Your task to perform on an android device: turn off location Image 0: 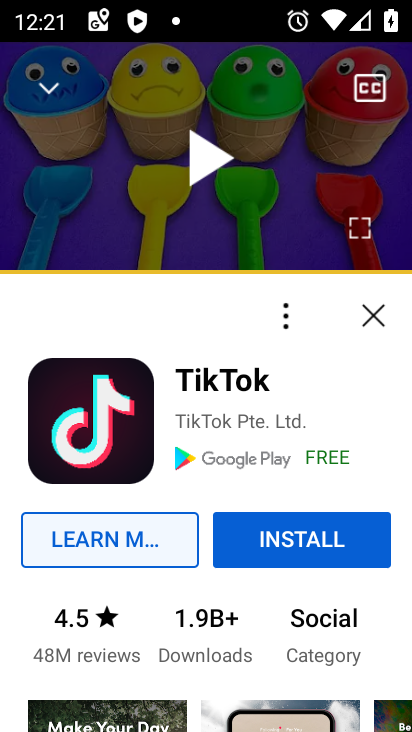
Step 0: press home button
Your task to perform on an android device: turn off location Image 1: 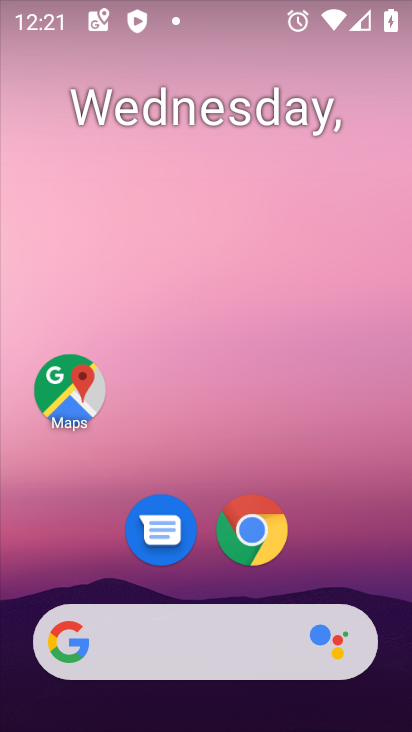
Step 1: drag from (230, 526) to (350, 184)
Your task to perform on an android device: turn off location Image 2: 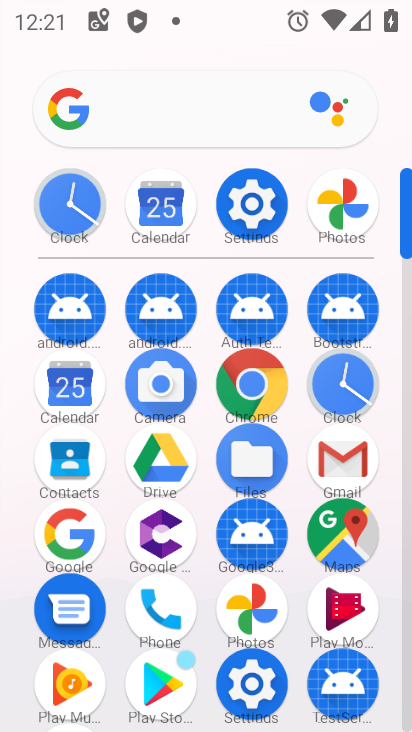
Step 2: click (252, 198)
Your task to perform on an android device: turn off location Image 3: 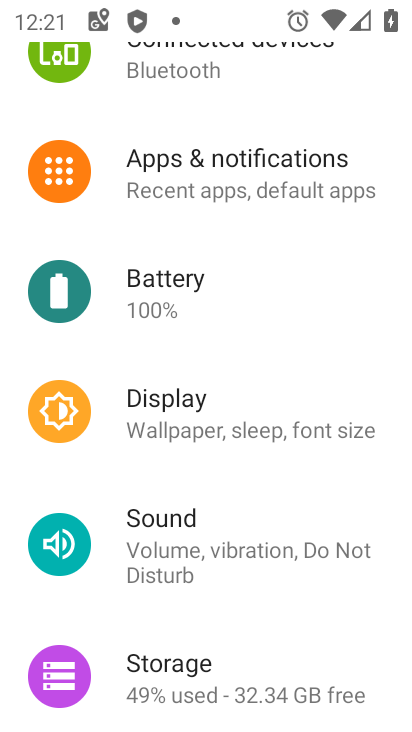
Step 3: drag from (211, 617) to (275, 171)
Your task to perform on an android device: turn off location Image 4: 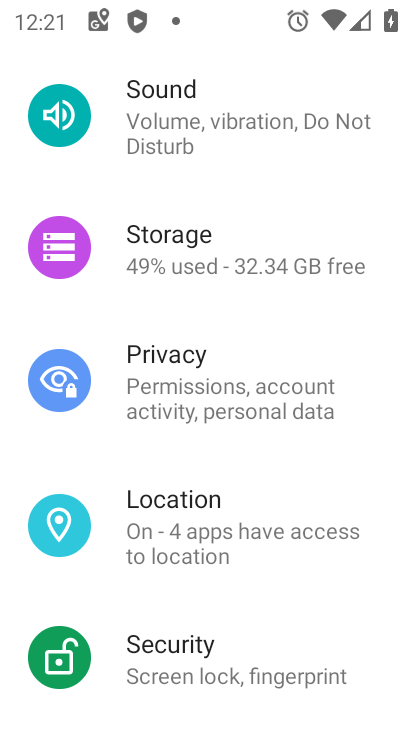
Step 4: click (241, 503)
Your task to perform on an android device: turn off location Image 5: 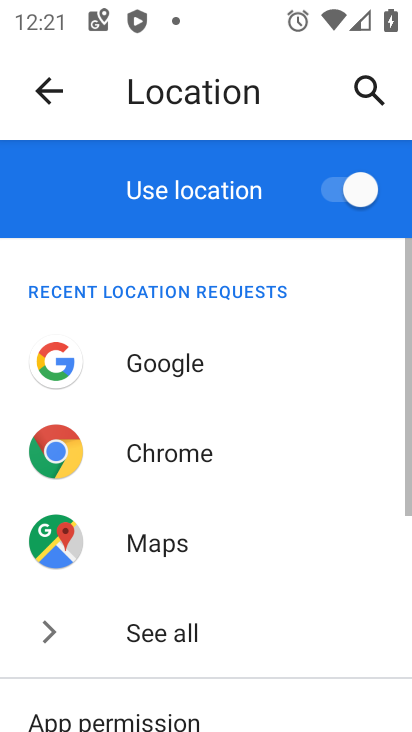
Step 5: click (331, 189)
Your task to perform on an android device: turn off location Image 6: 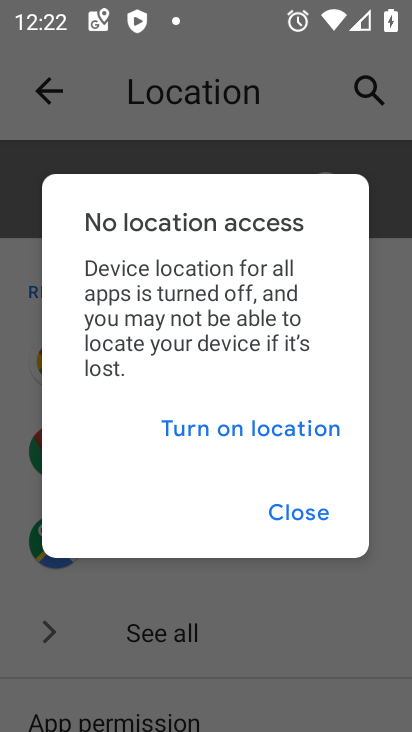
Step 6: task complete